Your task to perform on an android device: change alarm snooze length Image 0: 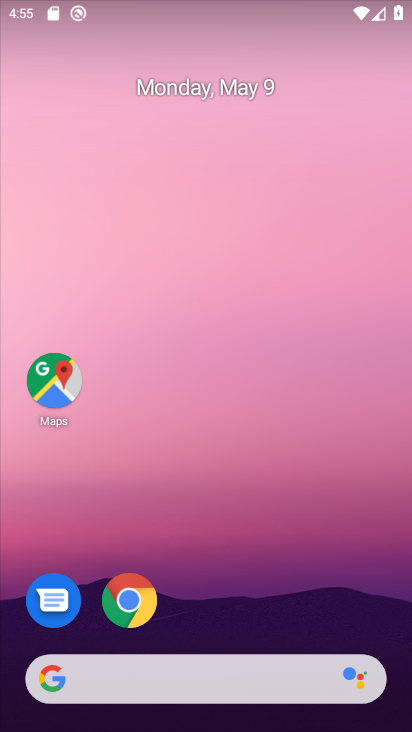
Step 0: drag from (257, 648) to (262, 23)
Your task to perform on an android device: change alarm snooze length Image 1: 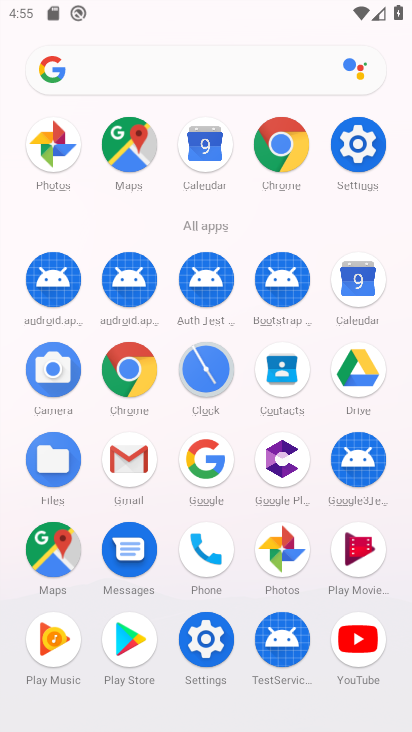
Step 1: click (215, 371)
Your task to perform on an android device: change alarm snooze length Image 2: 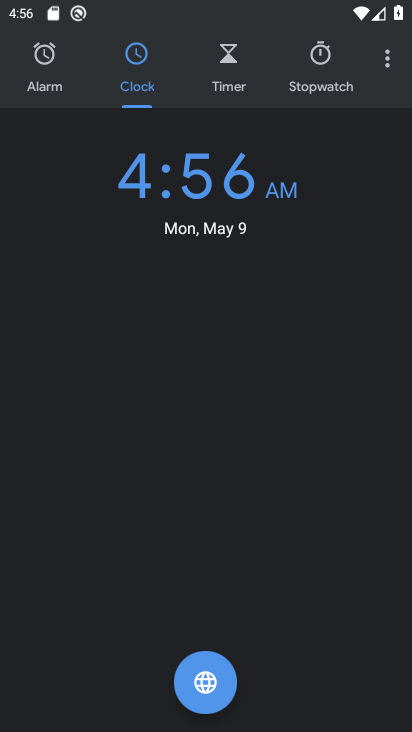
Step 2: click (387, 59)
Your task to perform on an android device: change alarm snooze length Image 3: 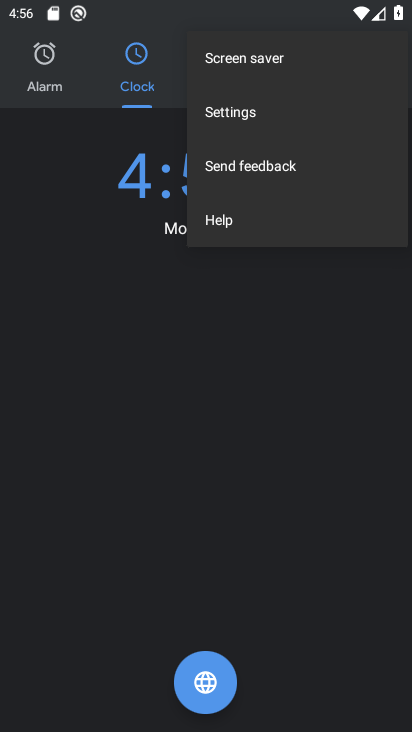
Step 3: click (239, 118)
Your task to perform on an android device: change alarm snooze length Image 4: 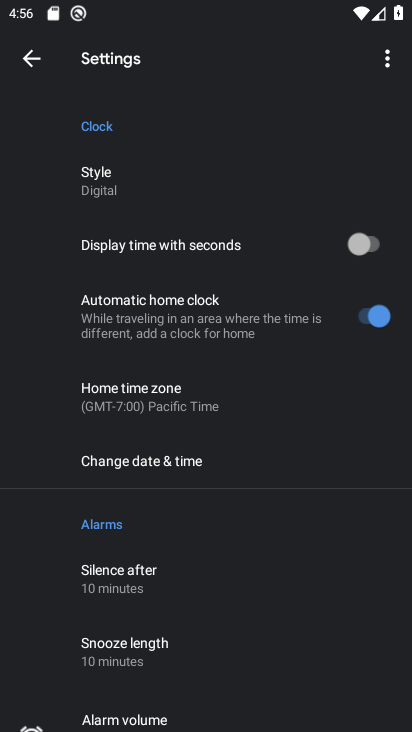
Step 4: click (238, 645)
Your task to perform on an android device: change alarm snooze length Image 5: 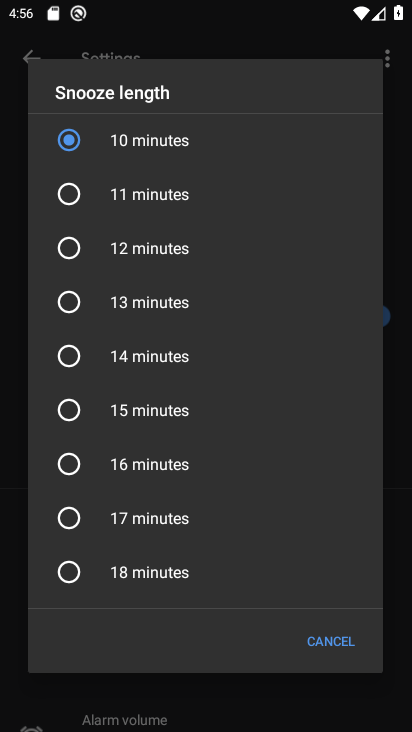
Step 5: click (192, 249)
Your task to perform on an android device: change alarm snooze length Image 6: 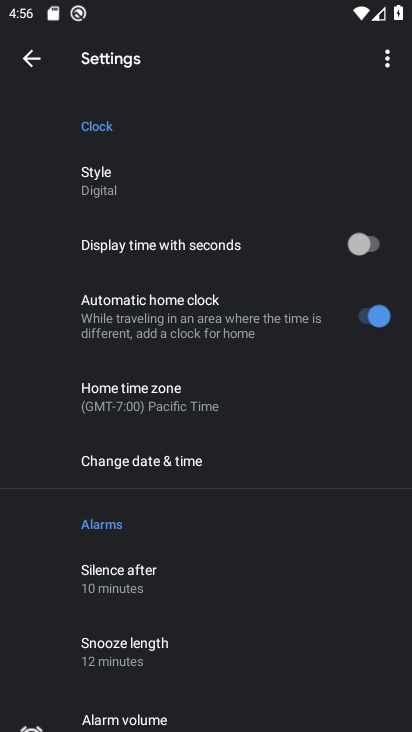
Step 6: task complete